Your task to perform on an android device: delete browsing data in the chrome app Image 0: 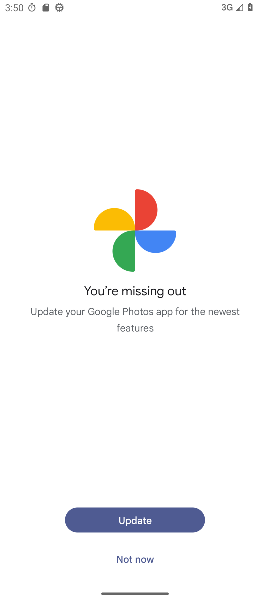
Step 0: press home button
Your task to perform on an android device: delete browsing data in the chrome app Image 1: 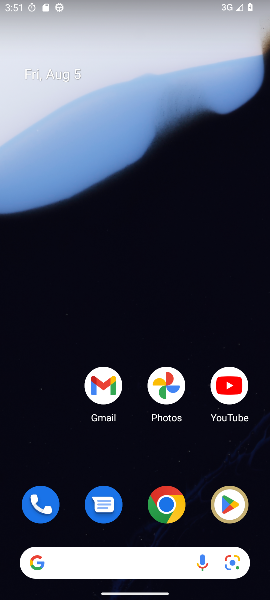
Step 1: click (153, 507)
Your task to perform on an android device: delete browsing data in the chrome app Image 2: 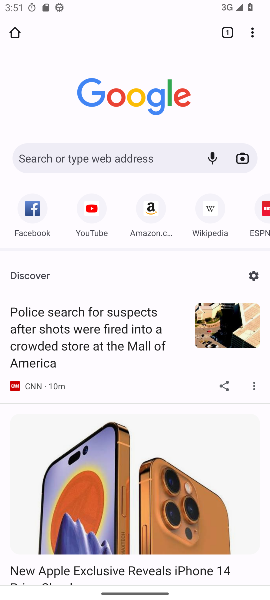
Step 2: click (248, 28)
Your task to perform on an android device: delete browsing data in the chrome app Image 3: 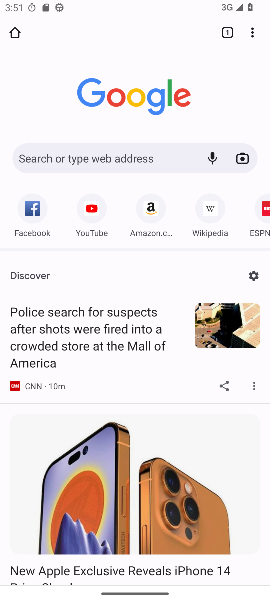
Step 3: click (255, 30)
Your task to perform on an android device: delete browsing data in the chrome app Image 4: 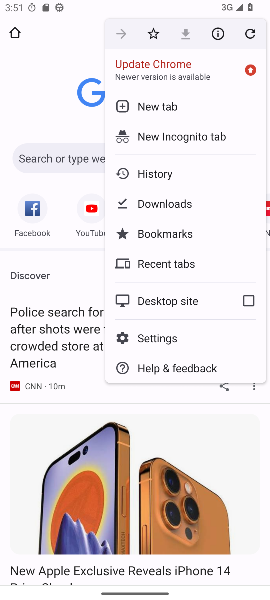
Step 4: click (150, 164)
Your task to perform on an android device: delete browsing data in the chrome app Image 5: 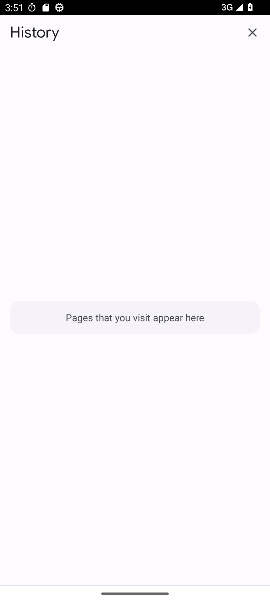
Step 5: task complete